Your task to perform on an android device: turn off notifications settings in the gmail app Image 0: 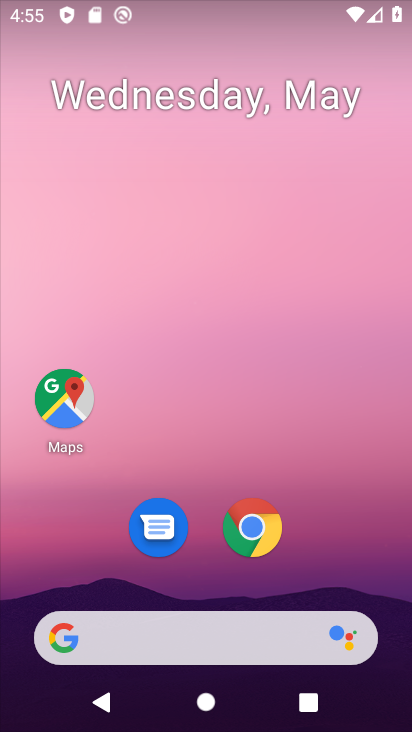
Step 0: drag from (319, 500) to (252, 3)
Your task to perform on an android device: turn off notifications settings in the gmail app Image 1: 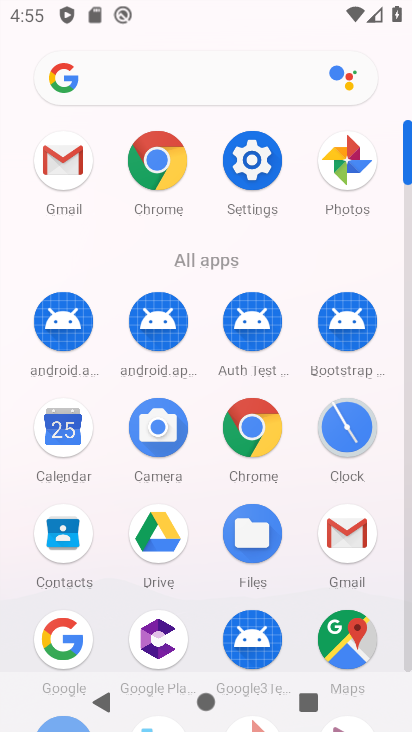
Step 1: click (350, 527)
Your task to perform on an android device: turn off notifications settings in the gmail app Image 2: 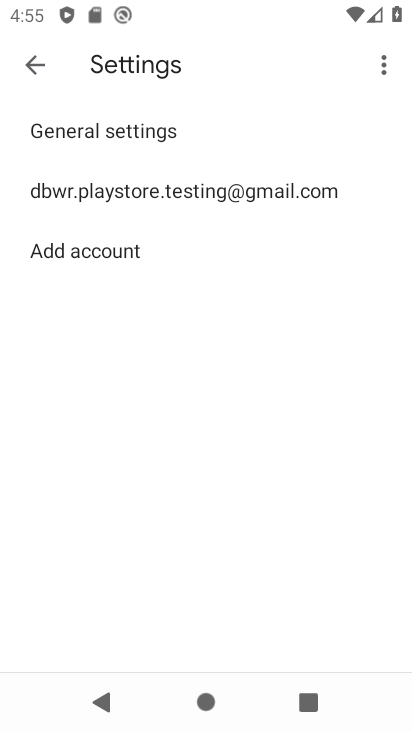
Step 2: click (151, 195)
Your task to perform on an android device: turn off notifications settings in the gmail app Image 3: 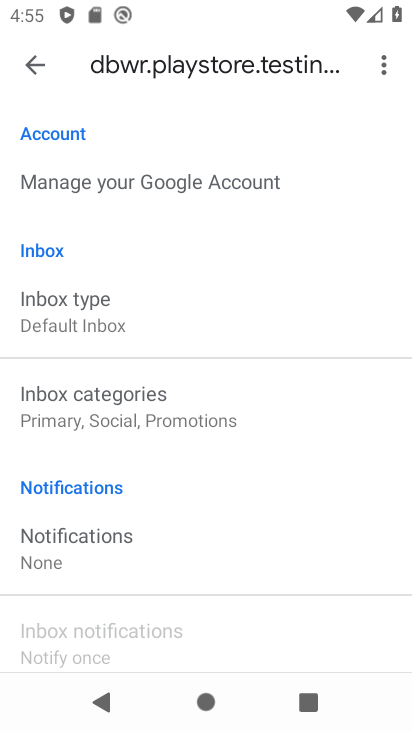
Step 3: click (89, 540)
Your task to perform on an android device: turn off notifications settings in the gmail app Image 4: 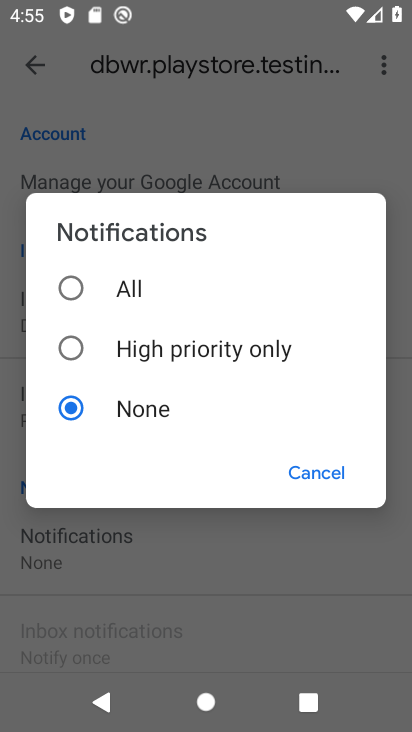
Step 4: task complete